Your task to perform on an android device: Search for Italian restaurants on Maps Image 0: 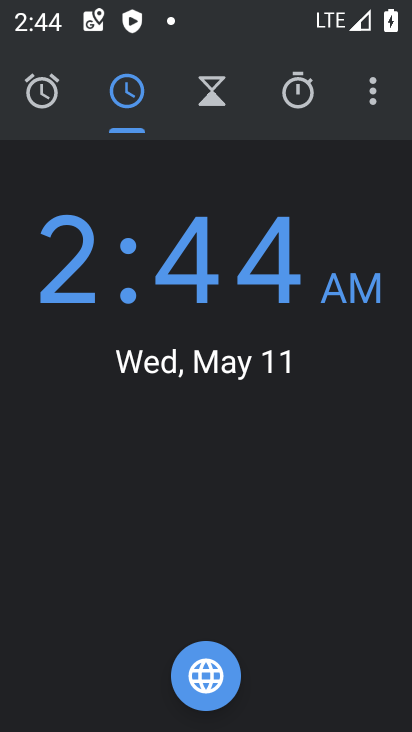
Step 0: press home button
Your task to perform on an android device: Search for Italian restaurants on Maps Image 1: 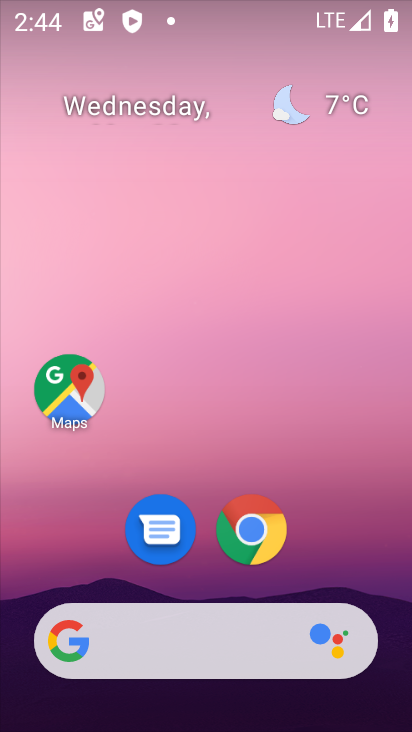
Step 1: drag from (320, 551) to (328, 51)
Your task to perform on an android device: Search for Italian restaurants on Maps Image 2: 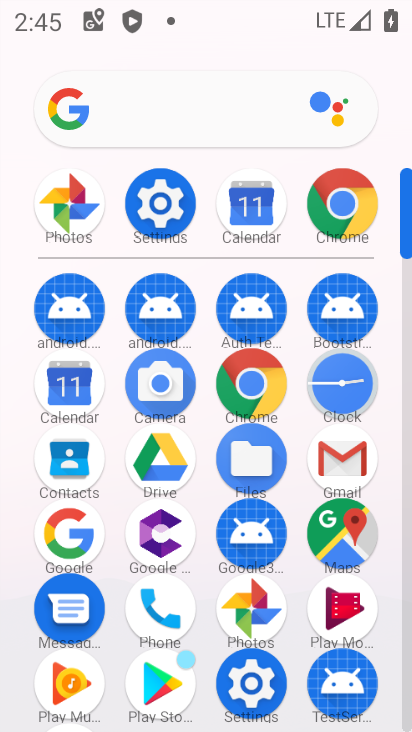
Step 2: click (164, 190)
Your task to perform on an android device: Search for Italian restaurants on Maps Image 3: 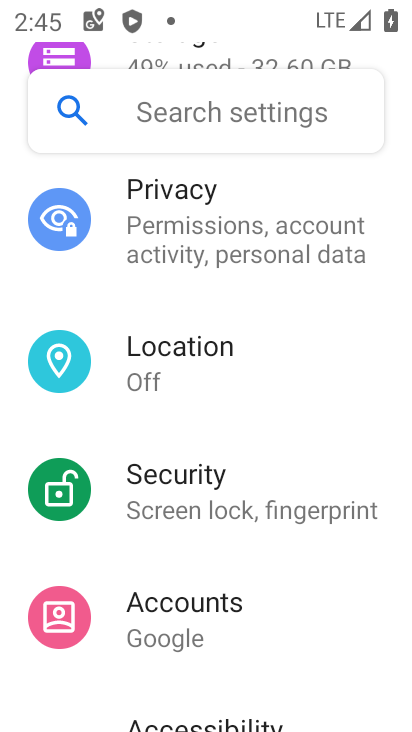
Step 3: press home button
Your task to perform on an android device: Search for Italian restaurants on Maps Image 4: 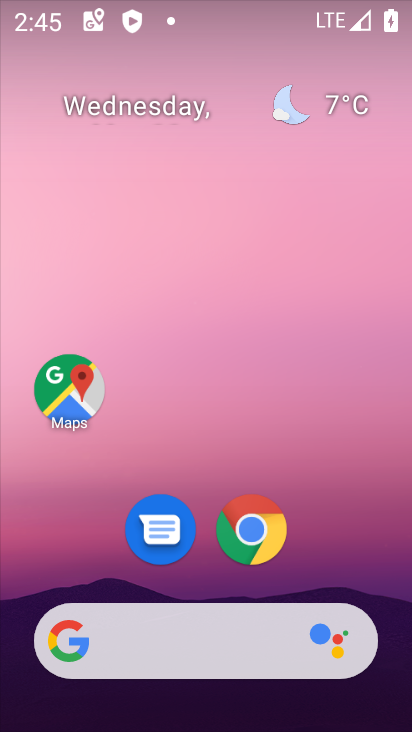
Step 4: click (29, 384)
Your task to perform on an android device: Search for Italian restaurants on Maps Image 5: 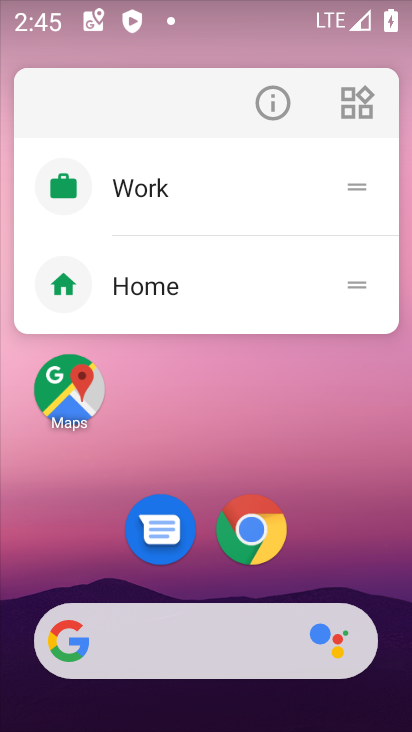
Step 5: click (45, 396)
Your task to perform on an android device: Search for Italian restaurants on Maps Image 6: 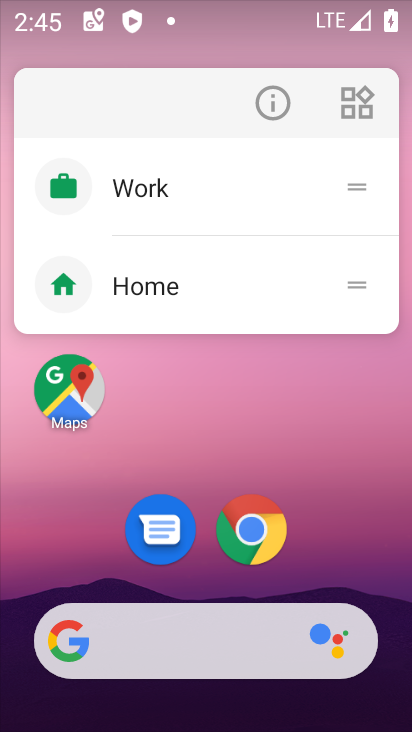
Step 6: click (71, 392)
Your task to perform on an android device: Search for Italian restaurants on Maps Image 7: 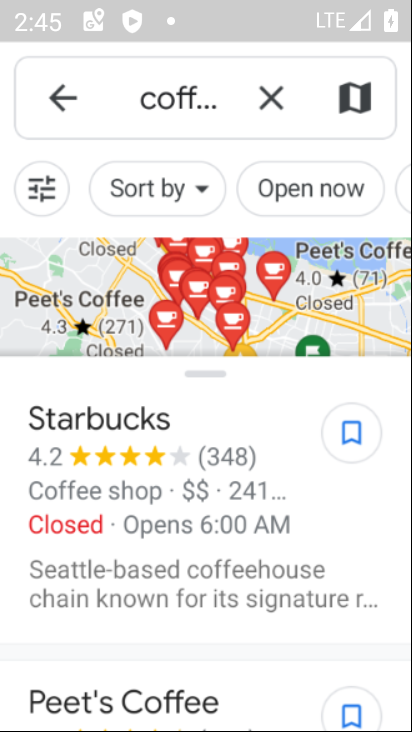
Step 7: click (266, 94)
Your task to perform on an android device: Search for Italian restaurants on Maps Image 8: 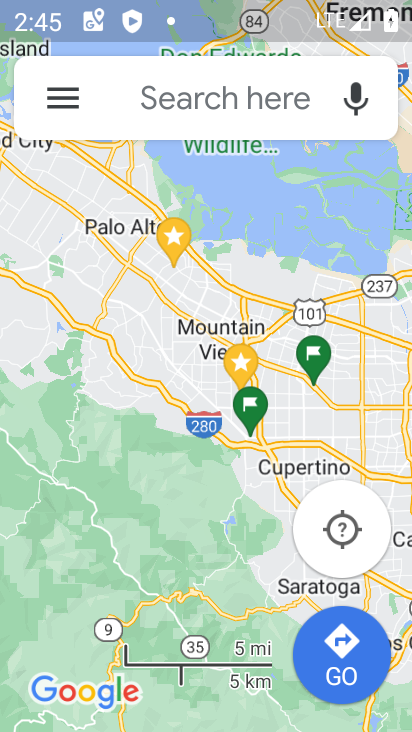
Step 8: click (264, 93)
Your task to perform on an android device: Search for Italian restaurants on Maps Image 9: 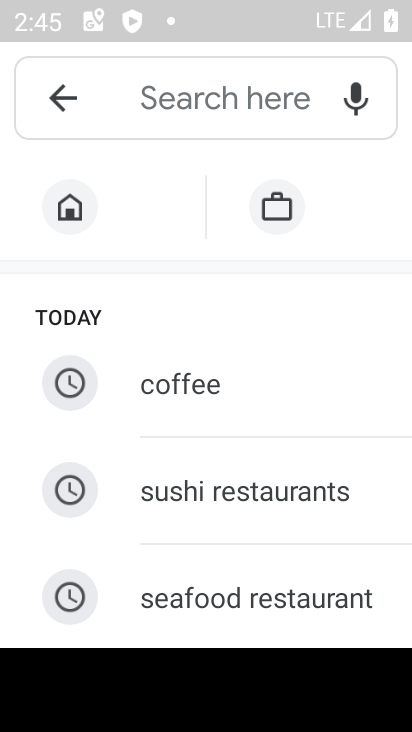
Step 9: drag from (253, 502) to (271, 116)
Your task to perform on an android device: Search for Italian restaurants on Maps Image 10: 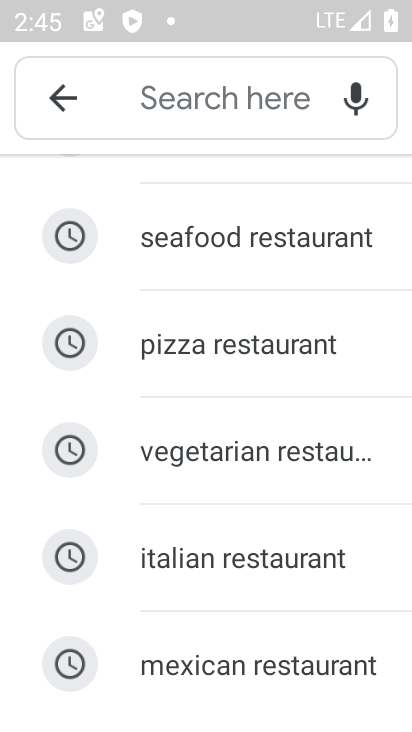
Step 10: drag from (260, 603) to (277, 386)
Your task to perform on an android device: Search for Italian restaurants on Maps Image 11: 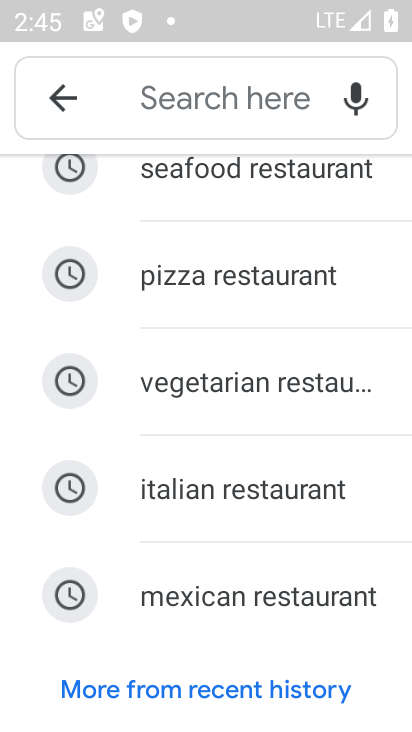
Step 11: click (223, 480)
Your task to perform on an android device: Search for Italian restaurants on Maps Image 12: 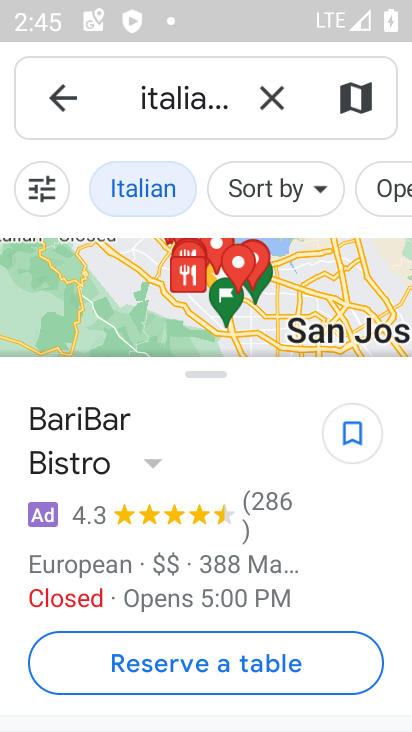
Step 12: task complete